Your task to perform on an android device: Go to battery settings Image 0: 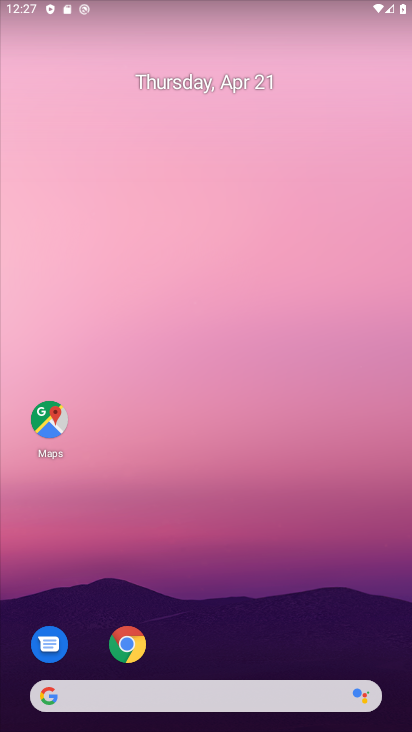
Step 0: drag from (251, 646) to (239, 58)
Your task to perform on an android device: Go to battery settings Image 1: 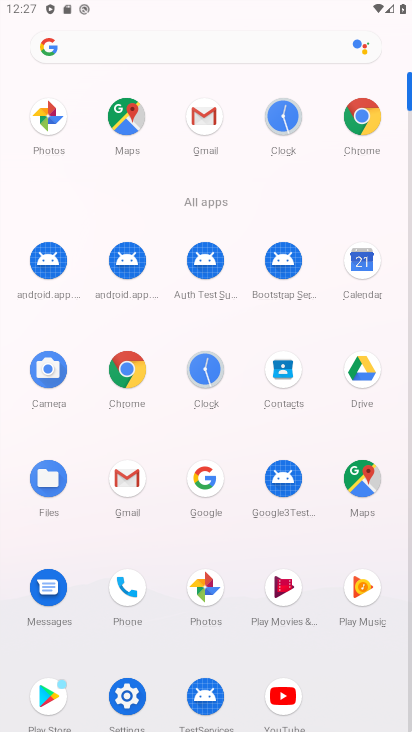
Step 1: click (130, 696)
Your task to perform on an android device: Go to battery settings Image 2: 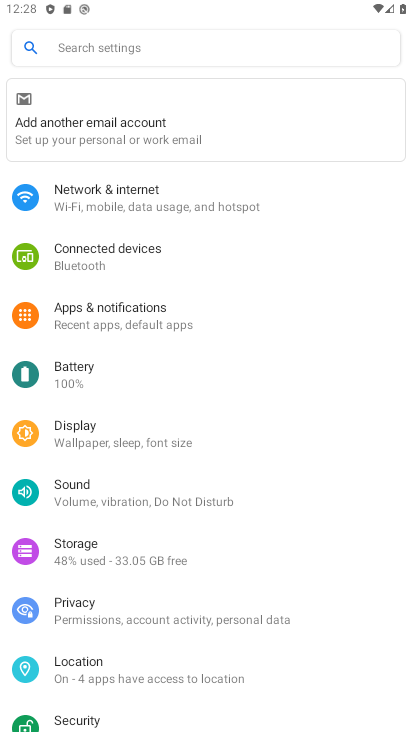
Step 2: click (127, 380)
Your task to perform on an android device: Go to battery settings Image 3: 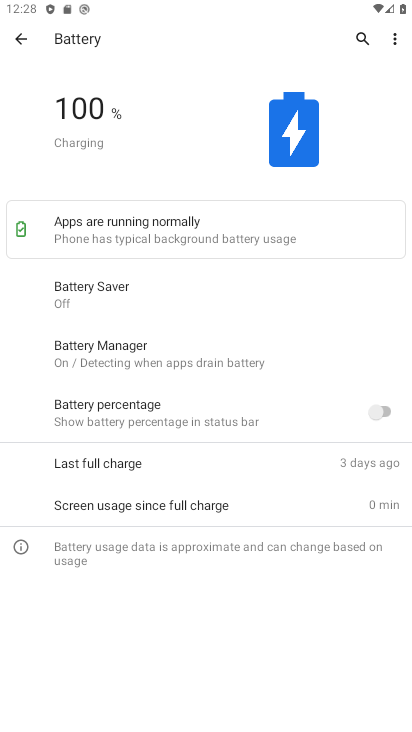
Step 3: task complete